Your task to perform on an android device: change notification settings in the gmail app Image 0: 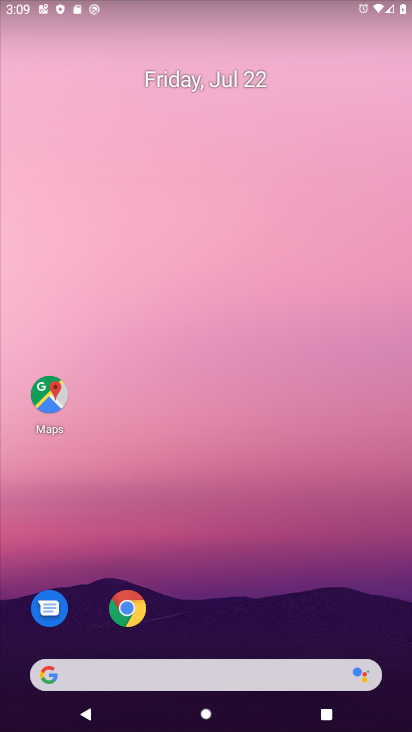
Step 0: drag from (328, 626) to (228, 297)
Your task to perform on an android device: change notification settings in the gmail app Image 1: 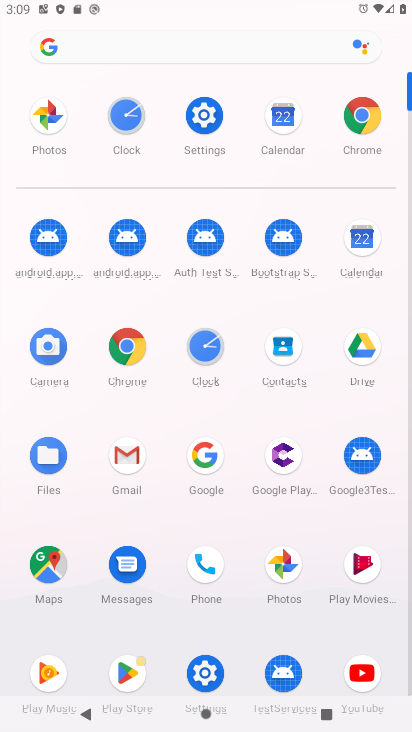
Step 1: click (119, 457)
Your task to perform on an android device: change notification settings in the gmail app Image 2: 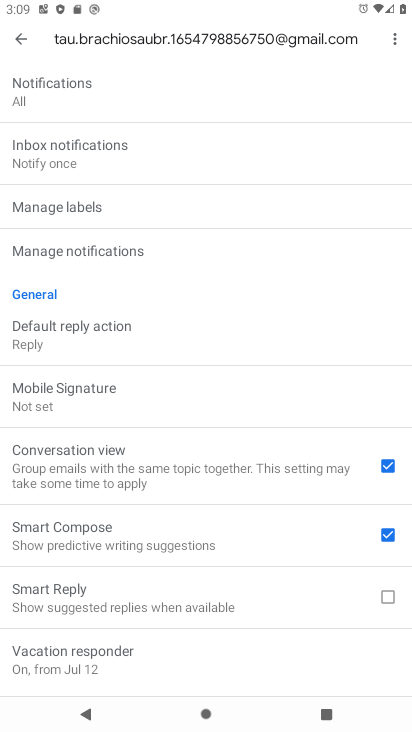
Step 2: click (122, 95)
Your task to perform on an android device: change notification settings in the gmail app Image 3: 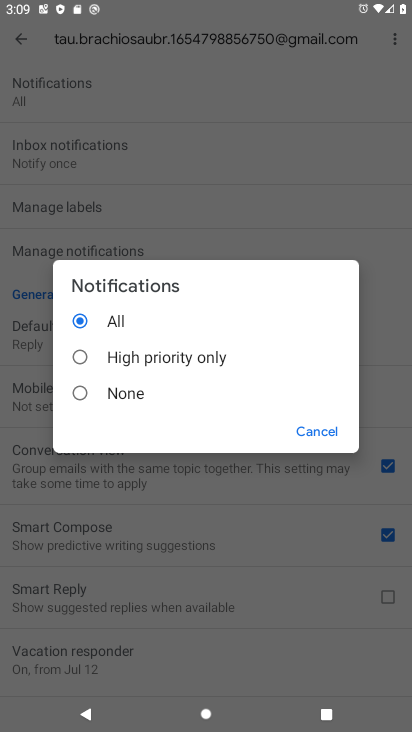
Step 3: click (105, 393)
Your task to perform on an android device: change notification settings in the gmail app Image 4: 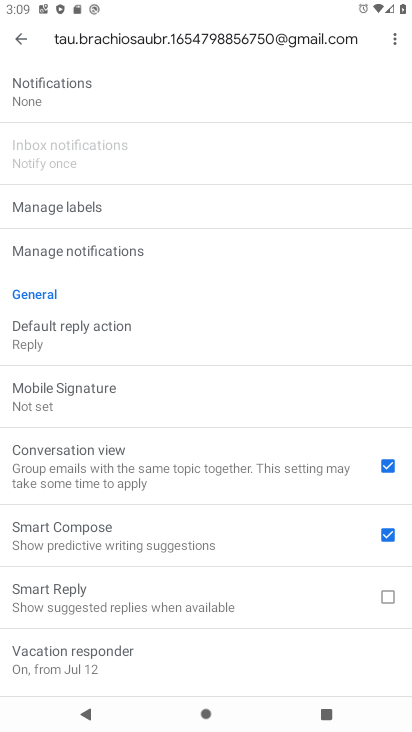
Step 4: click (92, 248)
Your task to perform on an android device: change notification settings in the gmail app Image 5: 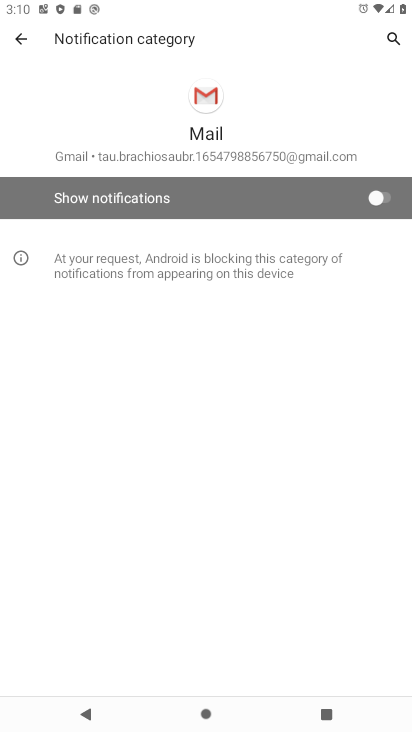
Step 5: task complete